Your task to perform on an android device: Do I have any events today? Image 0: 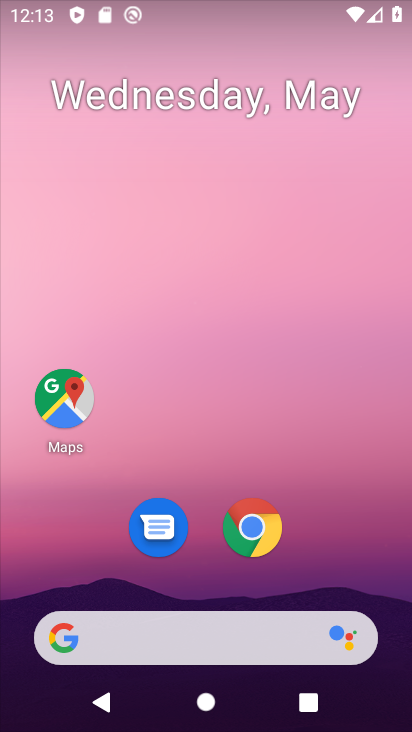
Step 0: drag from (340, 485) to (248, 64)
Your task to perform on an android device: Do I have any events today? Image 1: 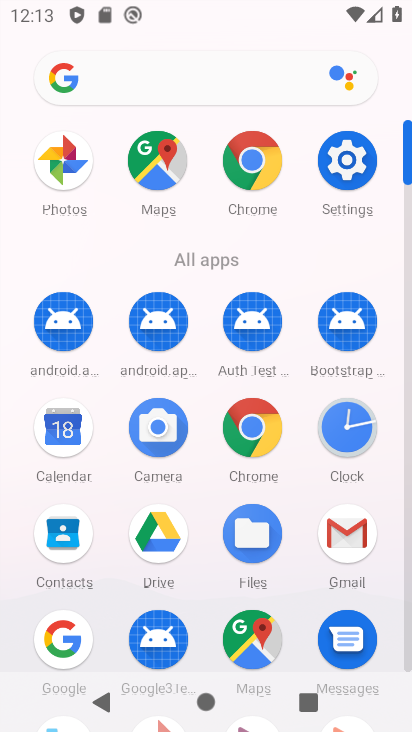
Step 1: click (62, 432)
Your task to perform on an android device: Do I have any events today? Image 2: 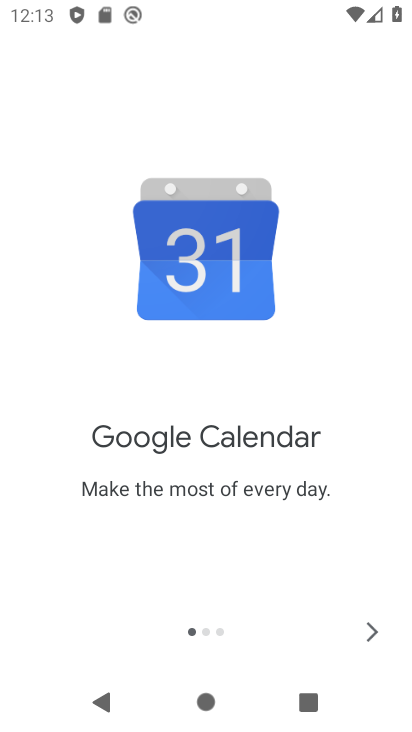
Step 2: click (373, 630)
Your task to perform on an android device: Do I have any events today? Image 3: 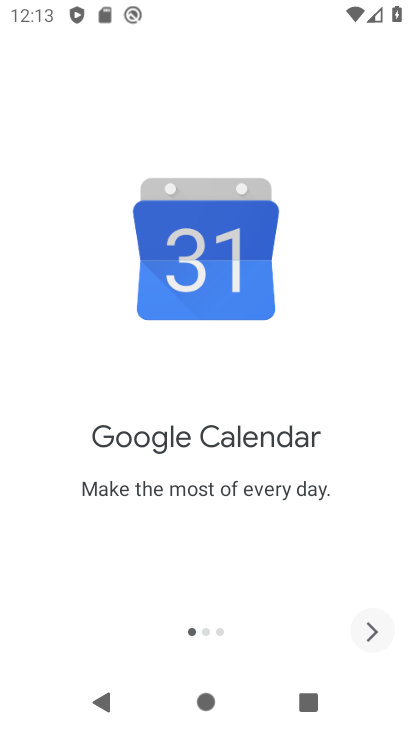
Step 3: click (373, 630)
Your task to perform on an android device: Do I have any events today? Image 4: 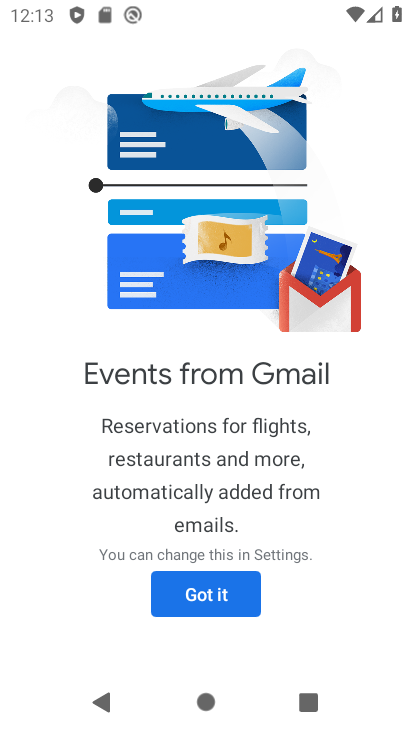
Step 4: click (196, 624)
Your task to perform on an android device: Do I have any events today? Image 5: 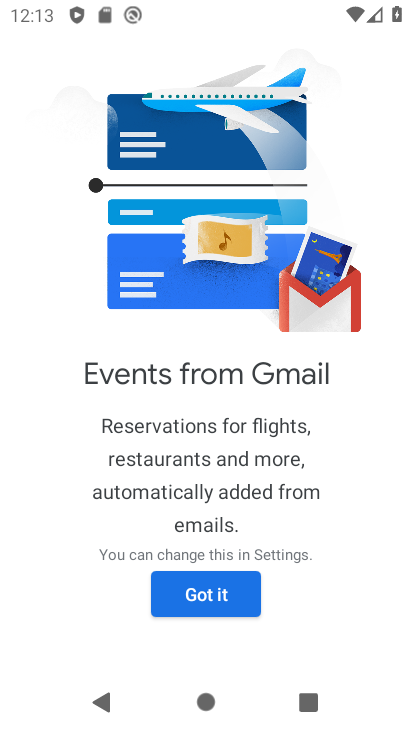
Step 5: click (197, 613)
Your task to perform on an android device: Do I have any events today? Image 6: 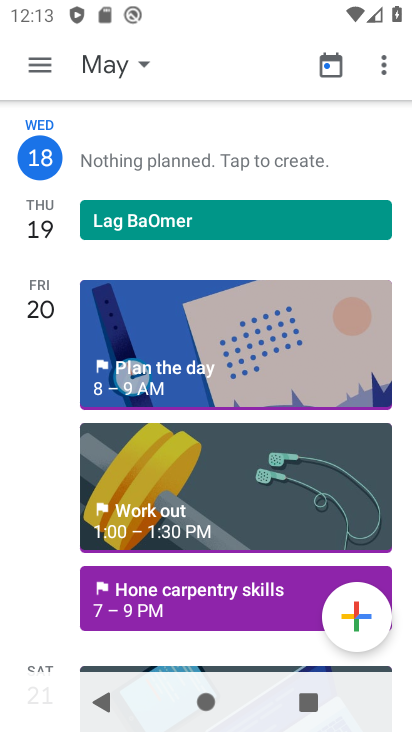
Step 6: task complete